Your task to perform on an android device: Open Maps and search for coffee Image 0: 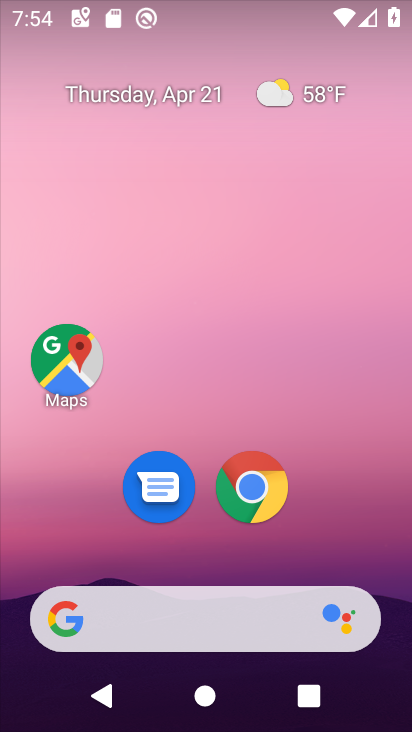
Step 0: drag from (320, 496) to (275, 8)
Your task to perform on an android device: Open Maps and search for coffee Image 1: 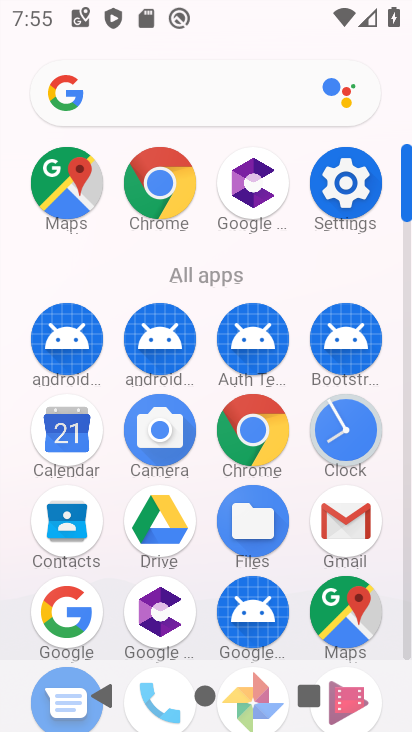
Step 1: click (347, 620)
Your task to perform on an android device: Open Maps and search for coffee Image 2: 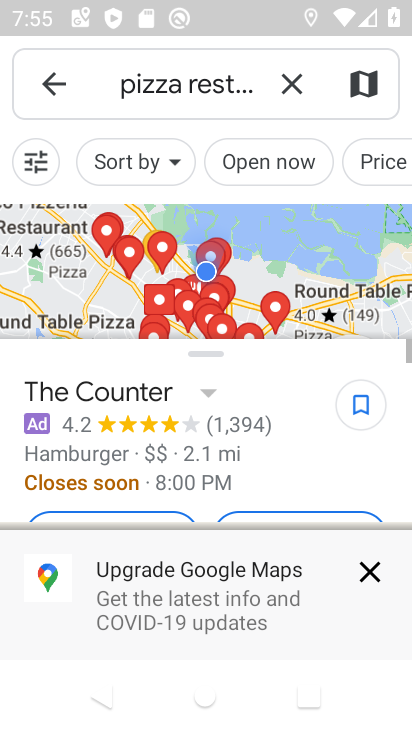
Step 2: click (289, 82)
Your task to perform on an android device: Open Maps and search for coffee Image 3: 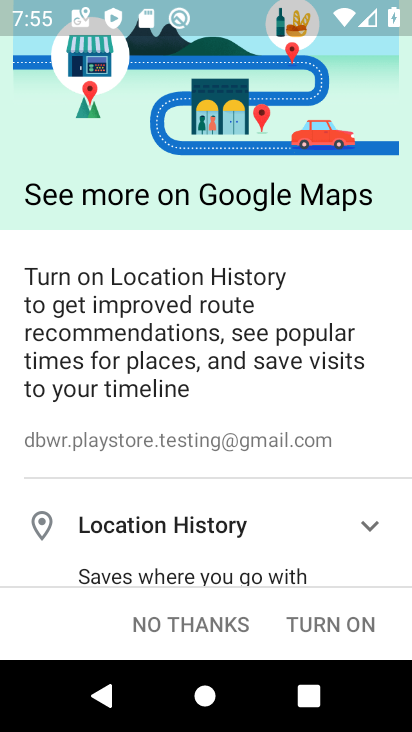
Step 3: click (331, 625)
Your task to perform on an android device: Open Maps and search for coffee Image 4: 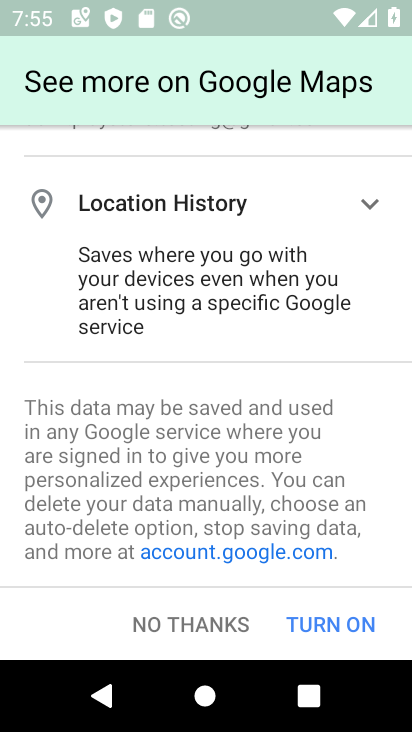
Step 4: click (315, 639)
Your task to perform on an android device: Open Maps and search for coffee Image 5: 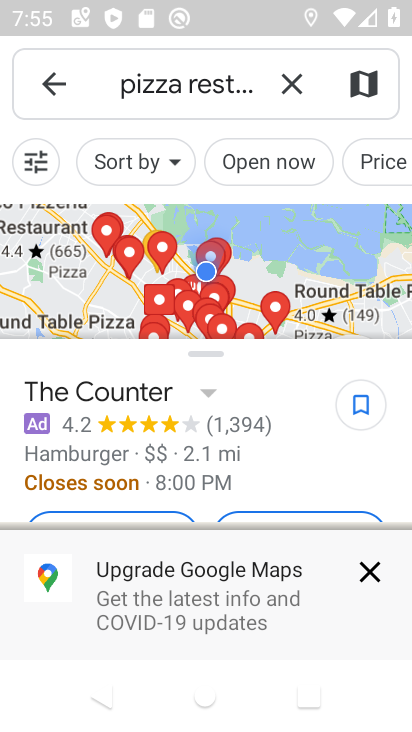
Step 5: click (306, 99)
Your task to perform on an android device: Open Maps and search for coffee Image 6: 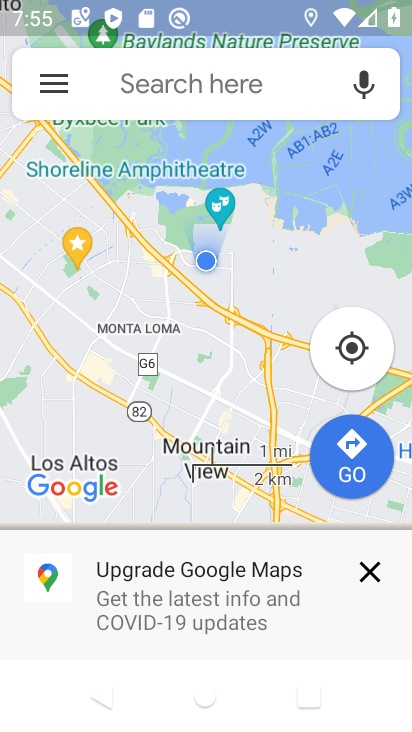
Step 6: click (283, 77)
Your task to perform on an android device: Open Maps and search for coffee Image 7: 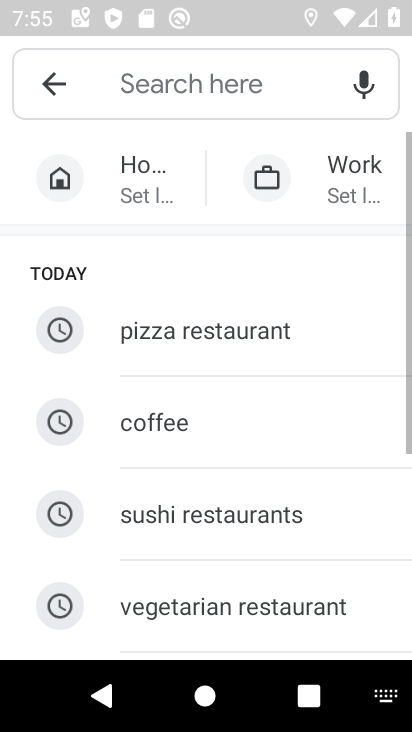
Step 7: click (191, 434)
Your task to perform on an android device: Open Maps and search for coffee Image 8: 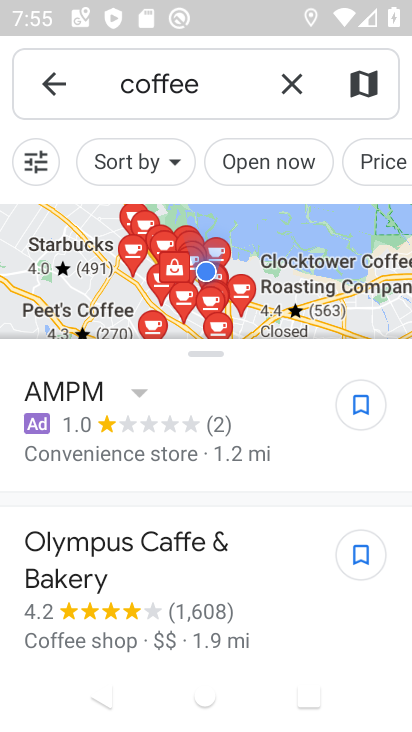
Step 8: task complete